Your task to perform on an android device: delete the emails in spam in the gmail app Image 0: 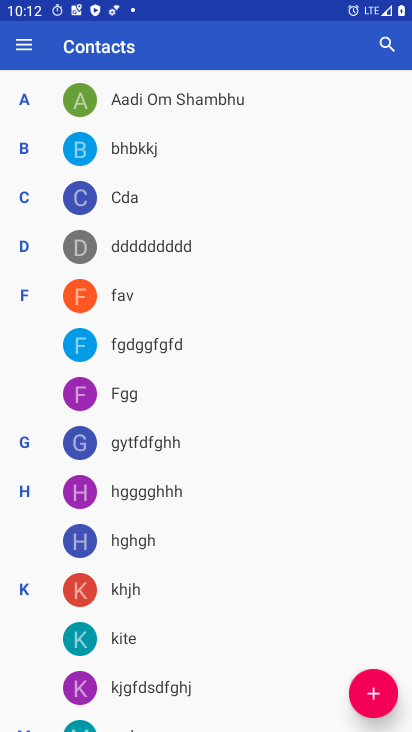
Step 0: press home button
Your task to perform on an android device: delete the emails in spam in the gmail app Image 1: 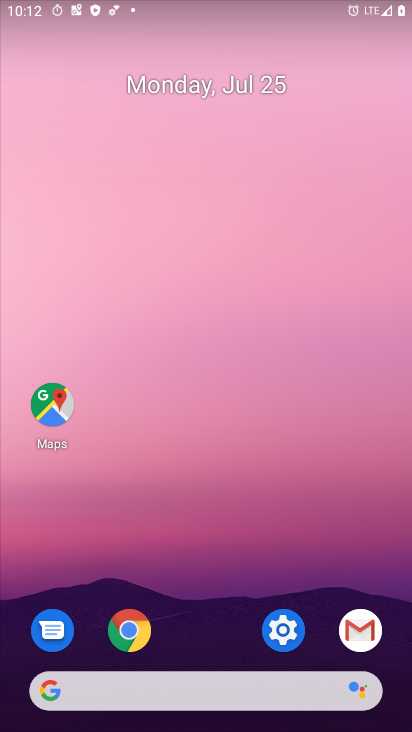
Step 1: click (360, 620)
Your task to perform on an android device: delete the emails in spam in the gmail app Image 2: 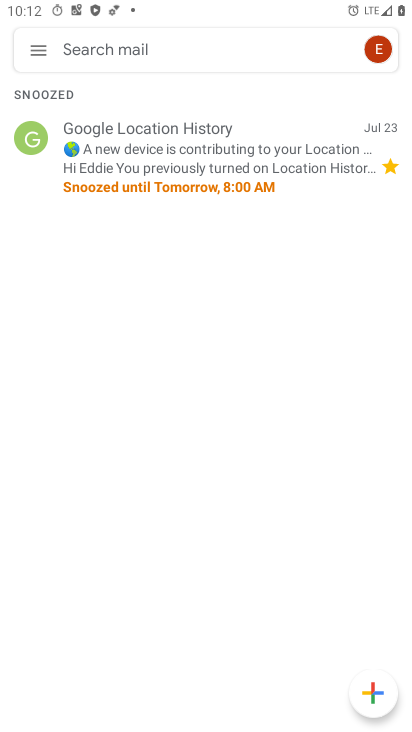
Step 2: click (42, 54)
Your task to perform on an android device: delete the emails in spam in the gmail app Image 3: 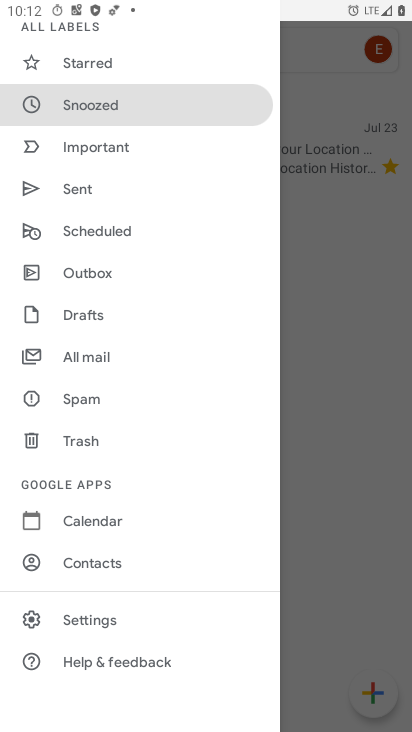
Step 3: click (85, 401)
Your task to perform on an android device: delete the emails in spam in the gmail app Image 4: 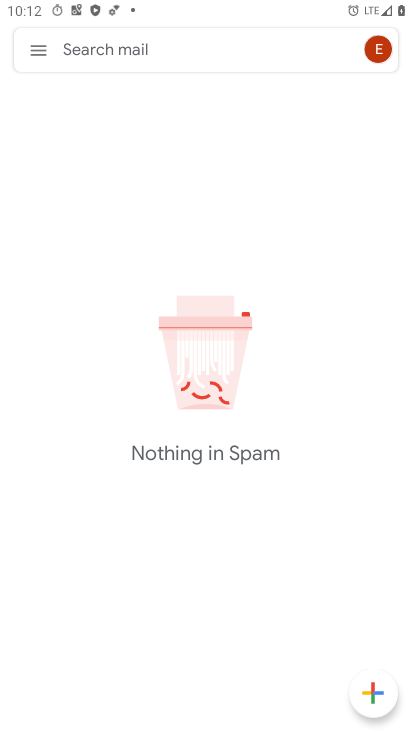
Step 4: task complete